Your task to perform on an android device: Open Google Chrome Image 0: 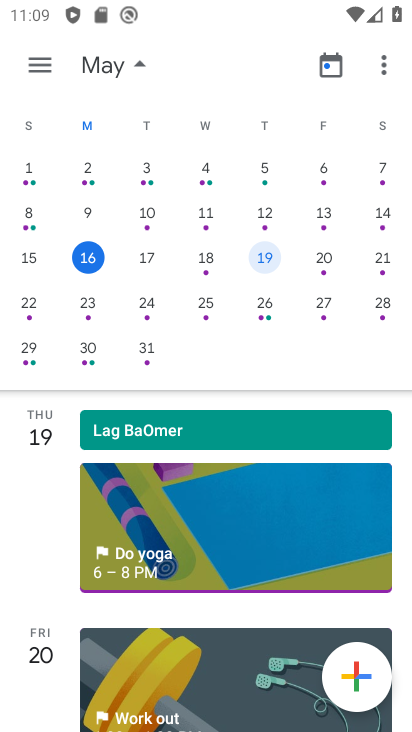
Step 0: press home button
Your task to perform on an android device: Open Google Chrome Image 1: 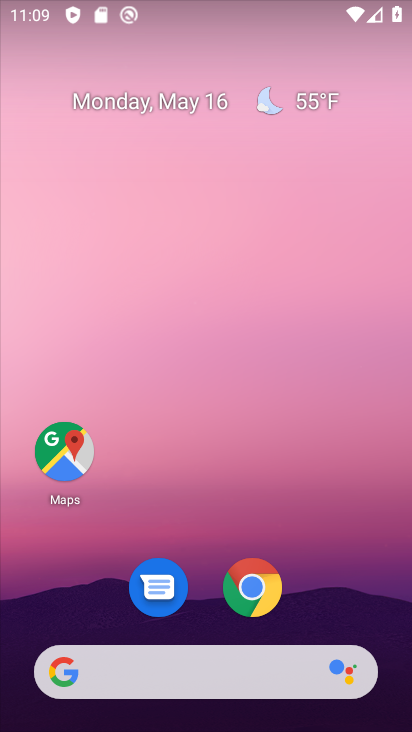
Step 1: click (246, 590)
Your task to perform on an android device: Open Google Chrome Image 2: 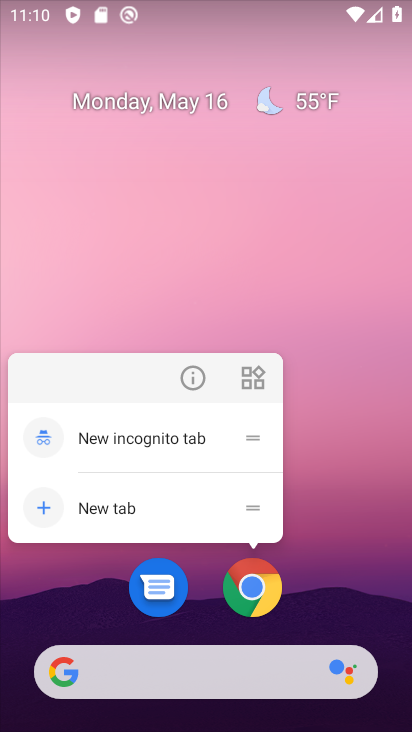
Step 2: click (201, 363)
Your task to perform on an android device: Open Google Chrome Image 3: 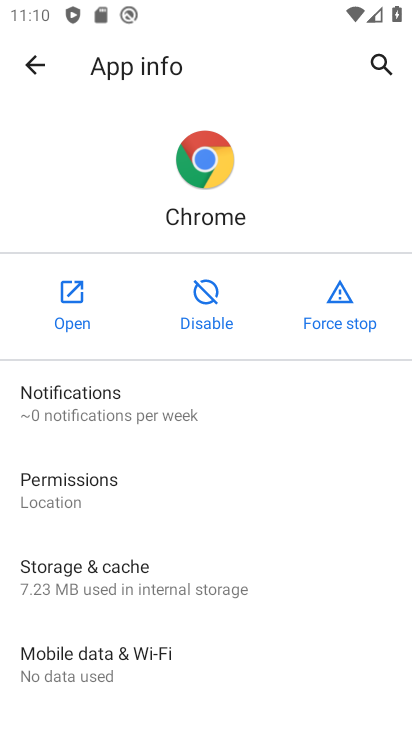
Step 3: click (57, 288)
Your task to perform on an android device: Open Google Chrome Image 4: 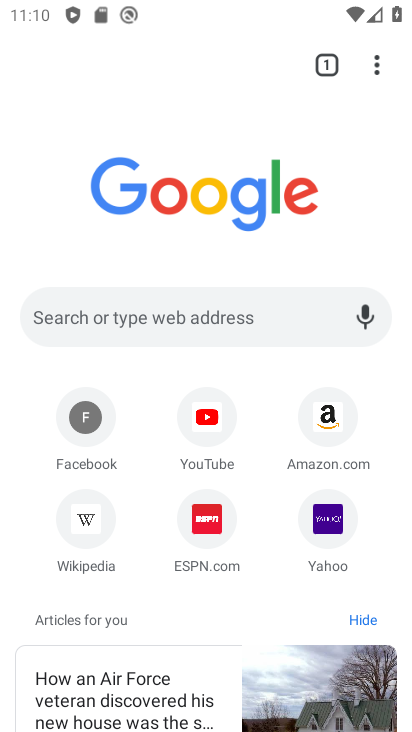
Step 4: click (370, 67)
Your task to perform on an android device: Open Google Chrome Image 5: 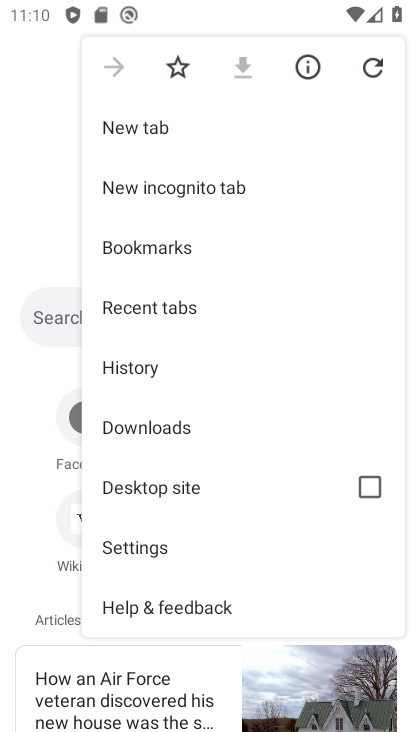
Step 5: task complete